Your task to perform on an android device: change the clock display to show seconds Image 0: 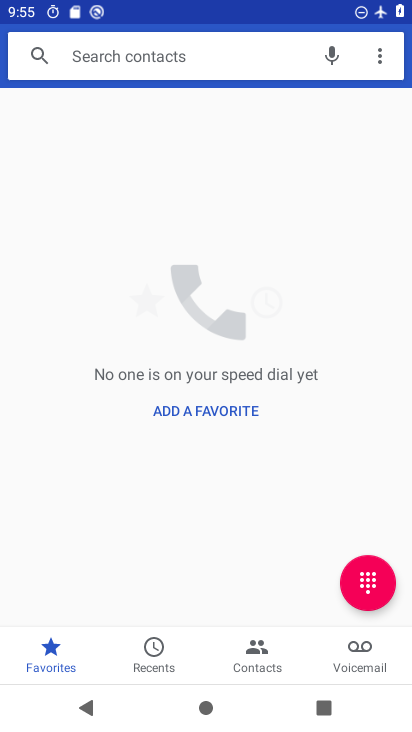
Step 0: press home button
Your task to perform on an android device: change the clock display to show seconds Image 1: 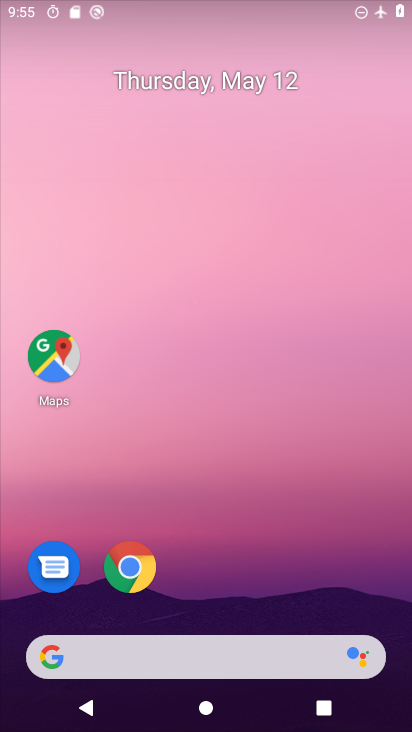
Step 1: drag from (293, 590) to (279, 141)
Your task to perform on an android device: change the clock display to show seconds Image 2: 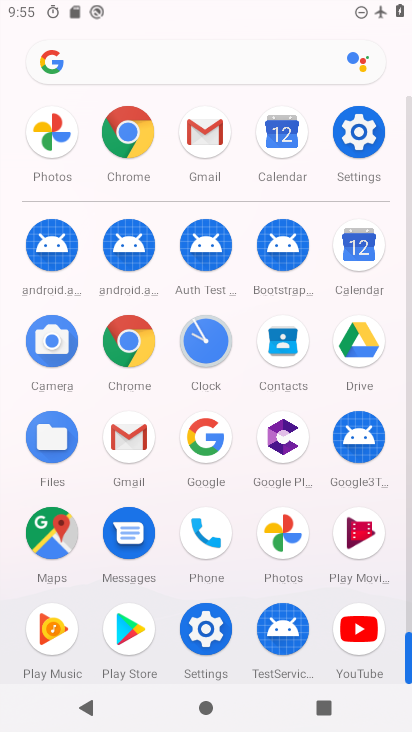
Step 2: click (207, 349)
Your task to perform on an android device: change the clock display to show seconds Image 3: 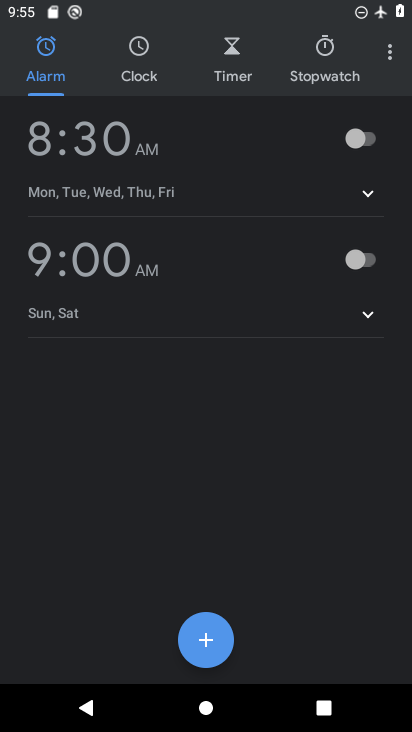
Step 3: click (390, 66)
Your task to perform on an android device: change the clock display to show seconds Image 4: 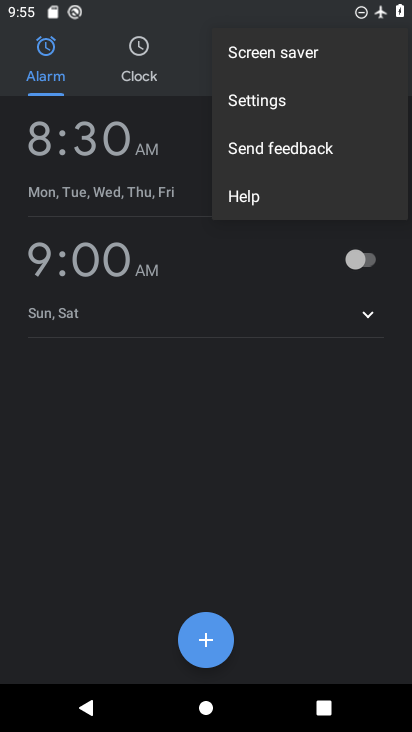
Step 4: click (283, 113)
Your task to perform on an android device: change the clock display to show seconds Image 5: 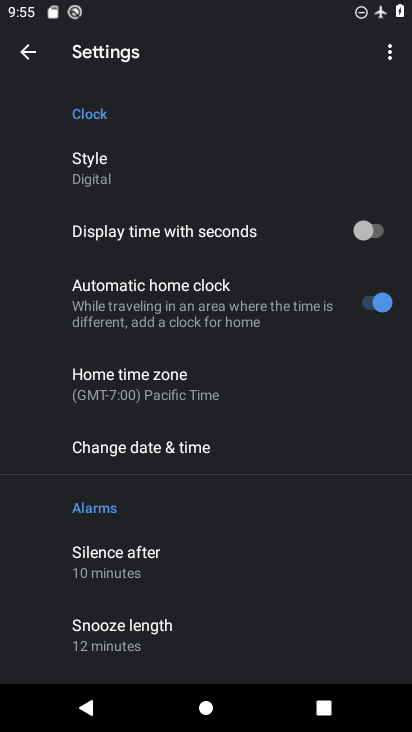
Step 5: drag from (204, 522) to (204, 236)
Your task to perform on an android device: change the clock display to show seconds Image 6: 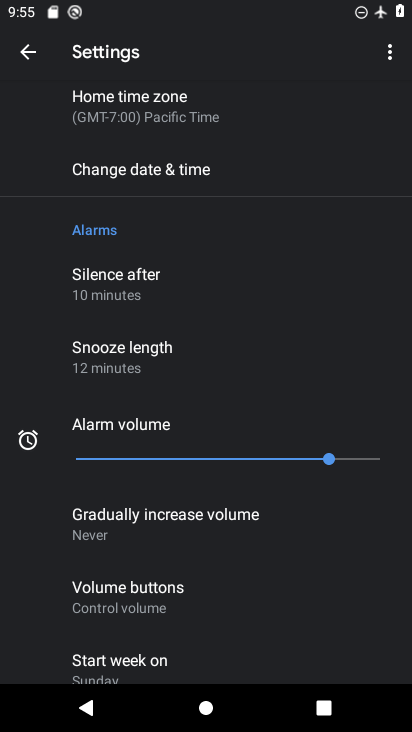
Step 6: drag from (215, 509) to (251, 220)
Your task to perform on an android device: change the clock display to show seconds Image 7: 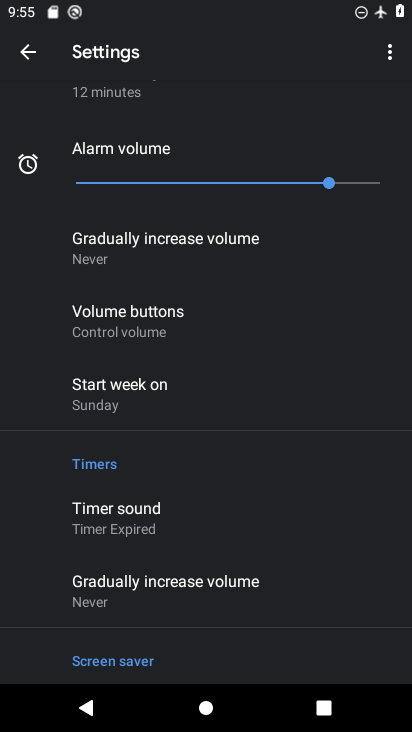
Step 7: drag from (227, 137) to (227, 420)
Your task to perform on an android device: change the clock display to show seconds Image 8: 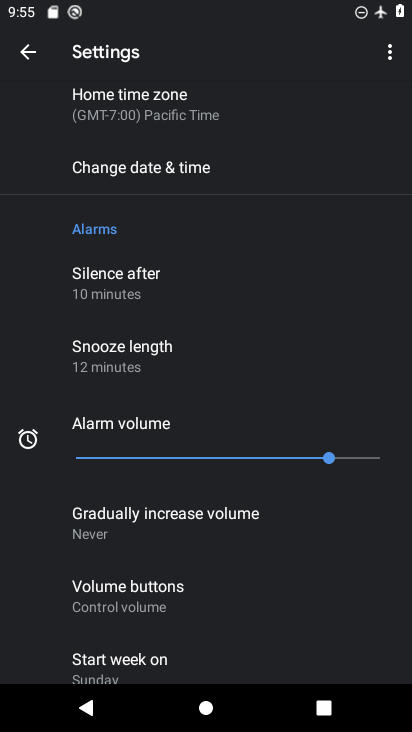
Step 8: drag from (222, 268) to (184, 676)
Your task to perform on an android device: change the clock display to show seconds Image 9: 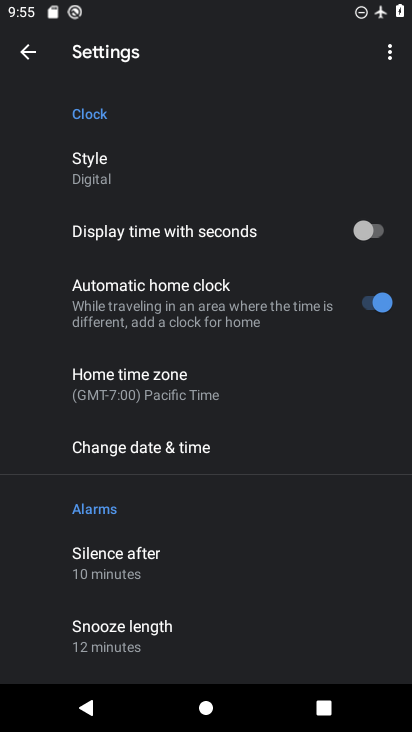
Step 9: click (326, 235)
Your task to perform on an android device: change the clock display to show seconds Image 10: 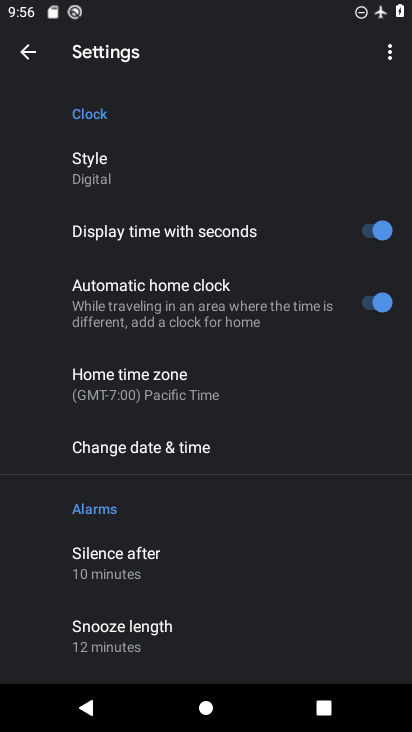
Step 10: task complete